Your task to perform on an android device: Open Google Chrome and open the bookmarks view Image 0: 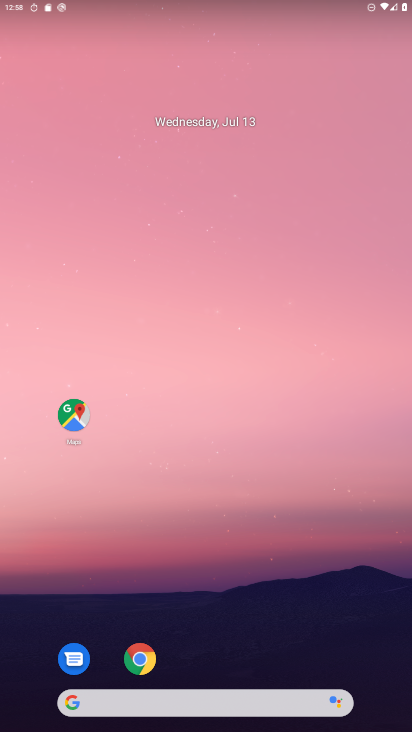
Step 0: drag from (179, 615) to (232, 168)
Your task to perform on an android device: Open Google Chrome and open the bookmarks view Image 1: 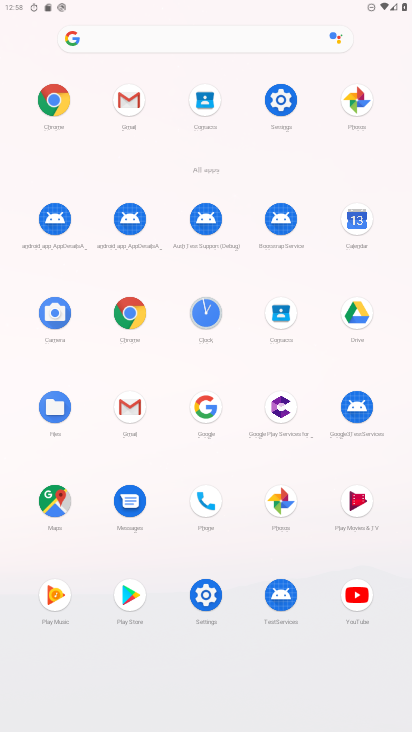
Step 1: click (142, 312)
Your task to perform on an android device: Open Google Chrome and open the bookmarks view Image 2: 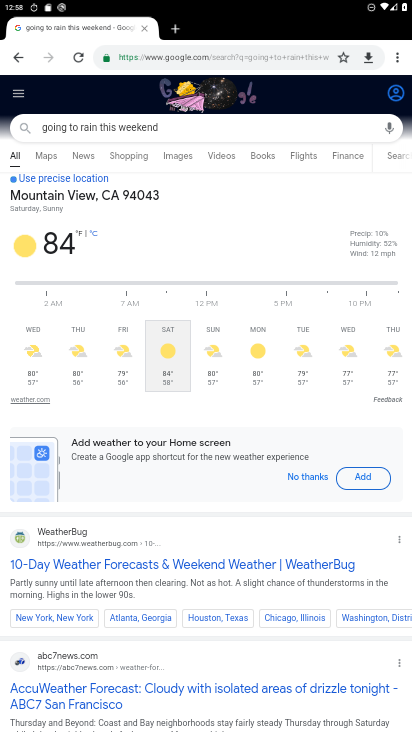
Step 2: task complete